Your task to perform on an android device: toggle priority inbox in the gmail app Image 0: 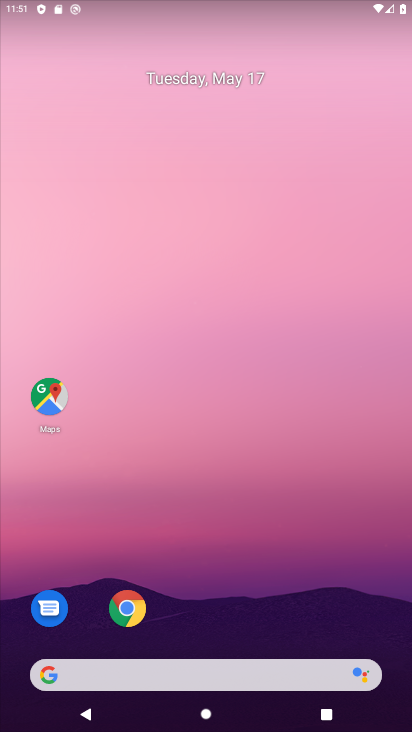
Step 0: drag from (242, 562) to (247, 11)
Your task to perform on an android device: toggle priority inbox in the gmail app Image 1: 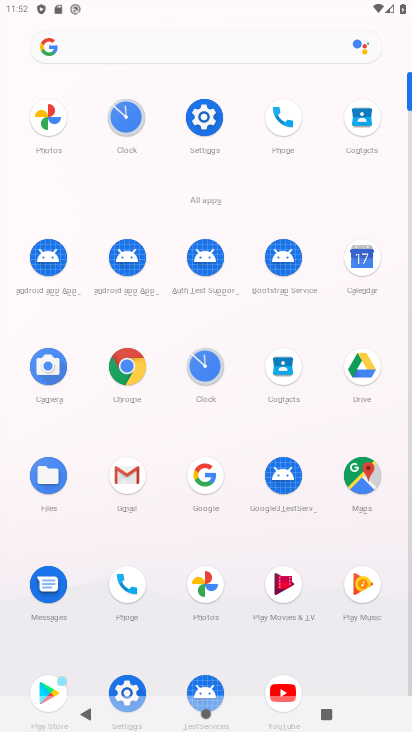
Step 1: click (124, 485)
Your task to perform on an android device: toggle priority inbox in the gmail app Image 2: 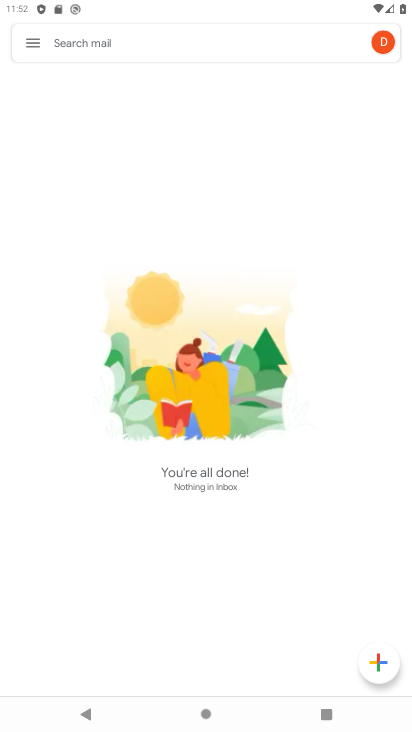
Step 2: click (34, 44)
Your task to perform on an android device: toggle priority inbox in the gmail app Image 3: 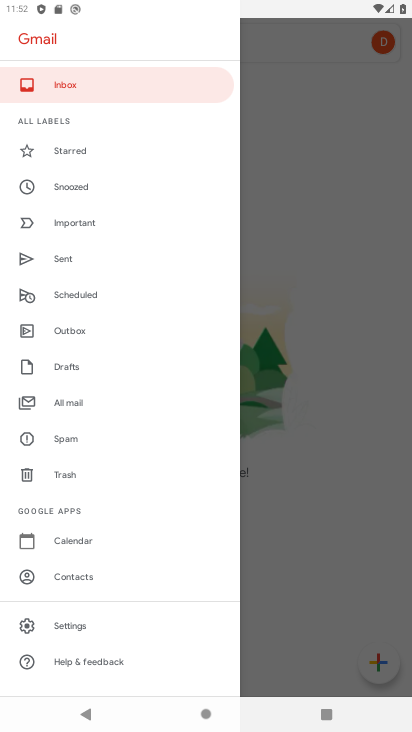
Step 3: click (75, 621)
Your task to perform on an android device: toggle priority inbox in the gmail app Image 4: 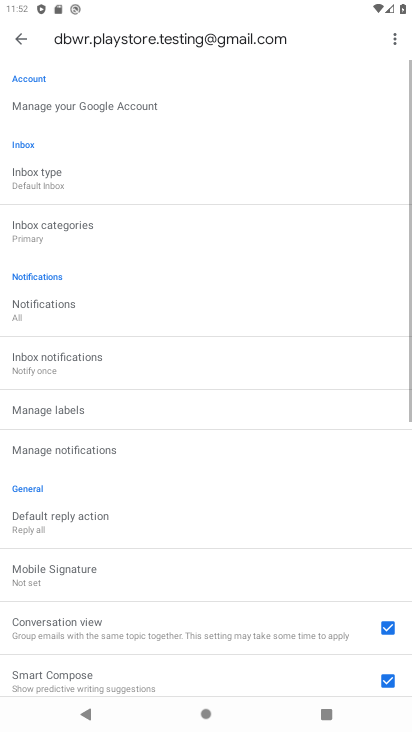
Step 4: click (39, 176)
Your task to perform on an android device: toggle priority inbox in the gmail app Image 5: 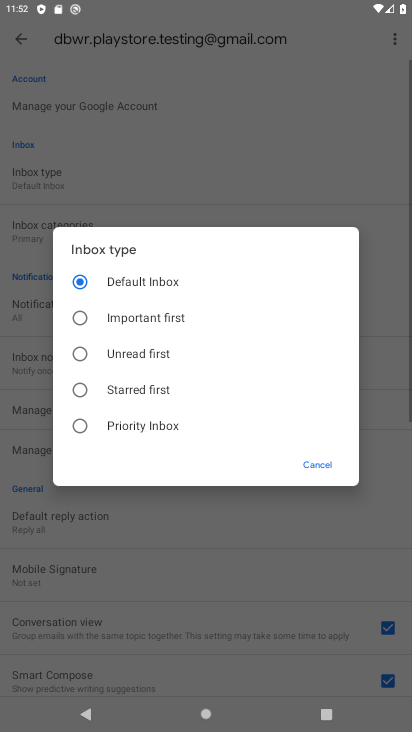
Step 5: click (133, 422)
Your task to perform on an android device: toggle priority inbox in the gmail app Image 6: 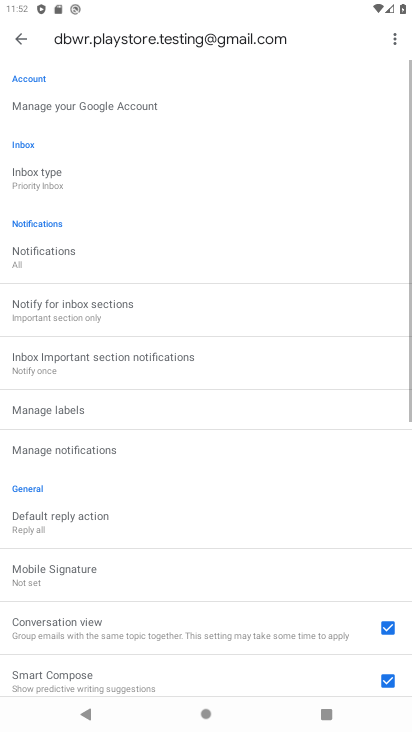
Step 6: task complete